Your task to perform on an android device: Go to Reddit.com Image 0: 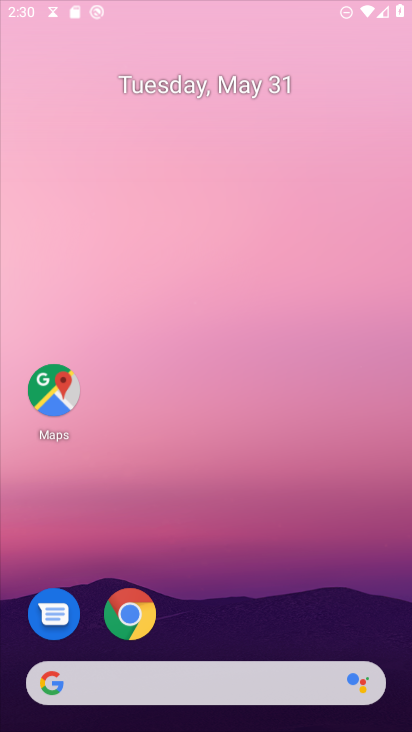
Step 0: press home button
Your task to perform on an android device: Go to Reddit.com Image 1: 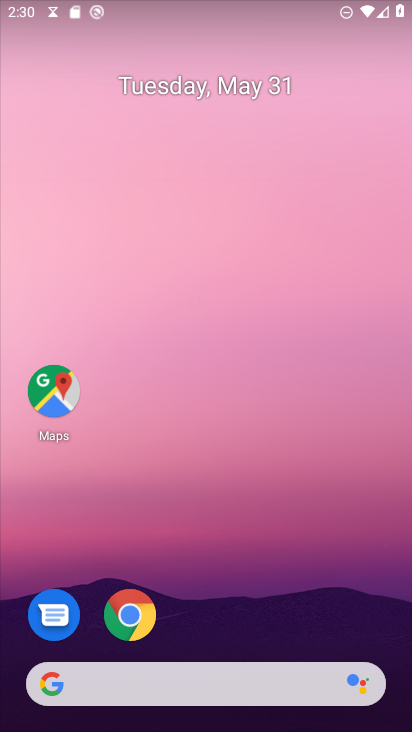
Step 1: drag from (242, 710) to (190, 110)
Your task to perform on an android device: Go to Reddit.com Image 2: 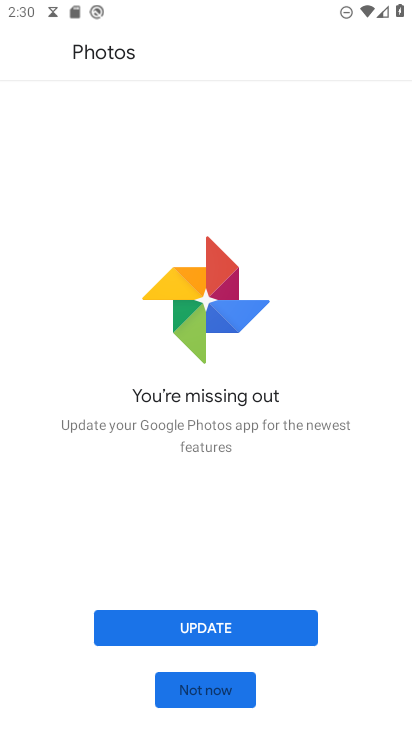
Step 2: click (207, 686)
Your task to perform on an android device: Go to Reddit.com Image 3: 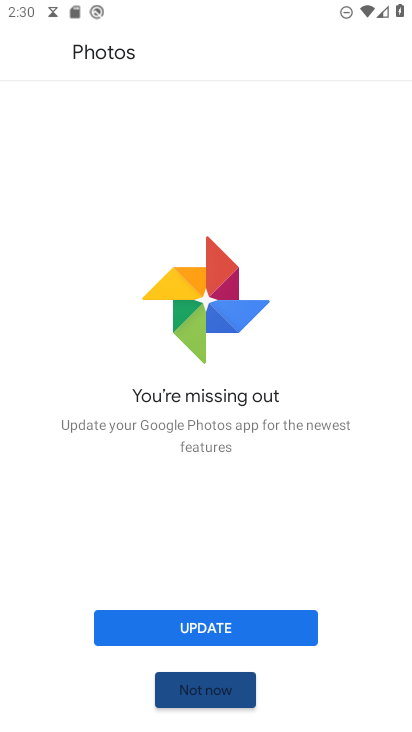
Step 3: click (207, 686)
Your task to perform on an android device: Go to Reddit.com Image 4: 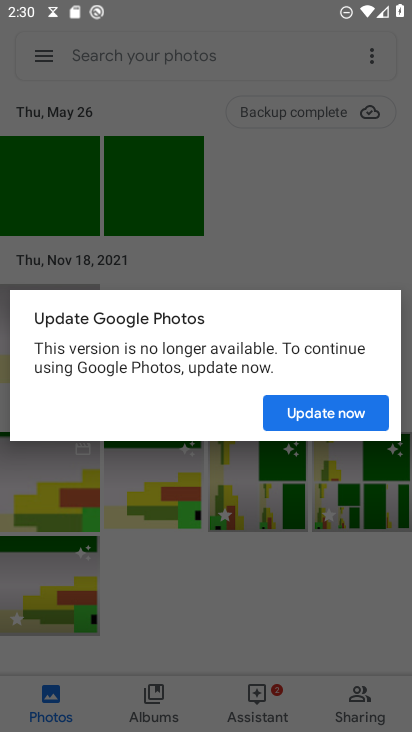
Step 4: click (323, 406)
Your task to perform on an android device: Go to Reddit.com Image 5: 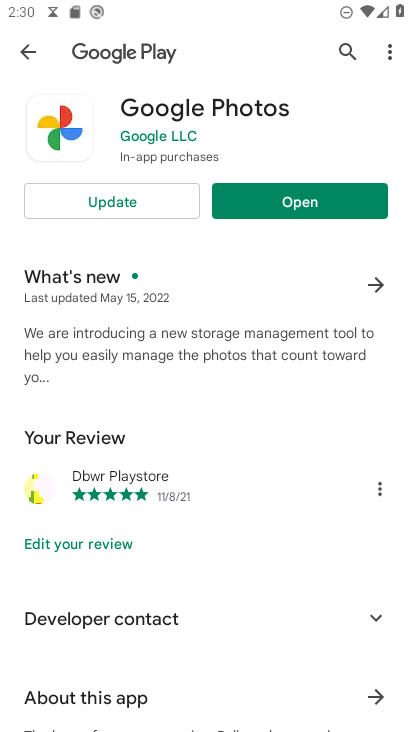
Step 5: press back button
Your task to perform on an android device: Go to Reddit.com Image 6: 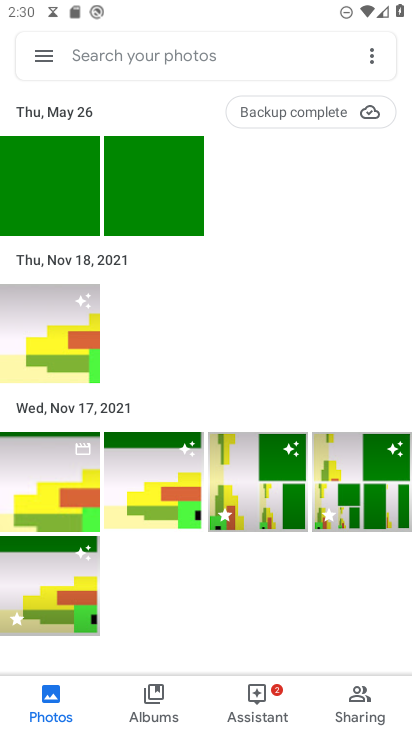
Step 6: press home button
Your task to perform on an android device: Go to Reddit.com Image 7: 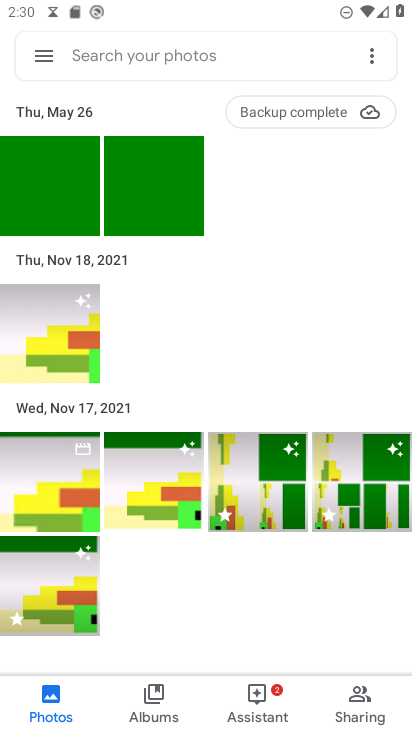
Step 7: press home button
Your task to perform on an android device: Go to Reddit.com Image 8: 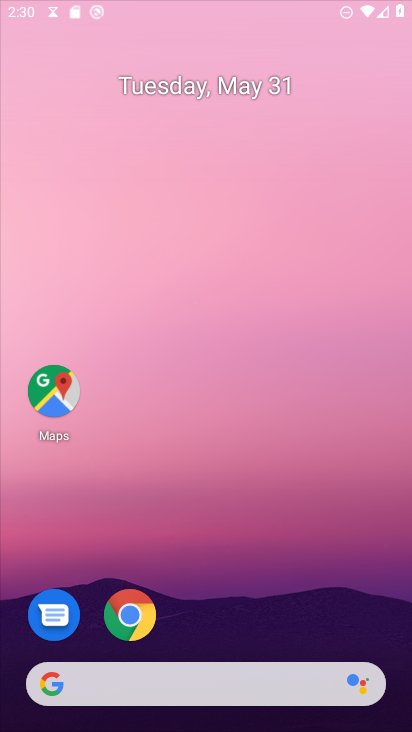
Step 8: press home button
Your task to perform on an android device: Go to Reddit.com Image 9: 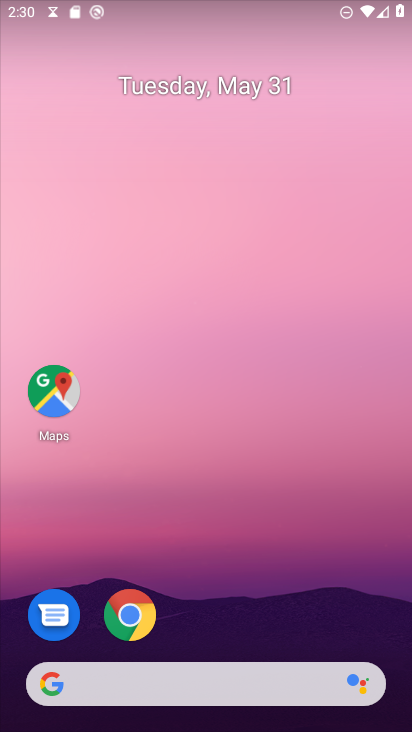
Step 9: drag from (246, 685) to (217, 125)
Your task to perform on an android device: Go to Reddit.com Image 10: 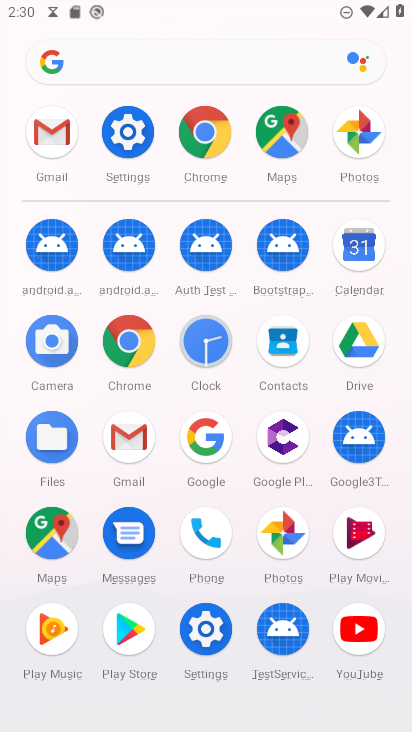
Step 10: click (200, 124)
Your task to perform on an android device: Go to Reddit.com Image 11: 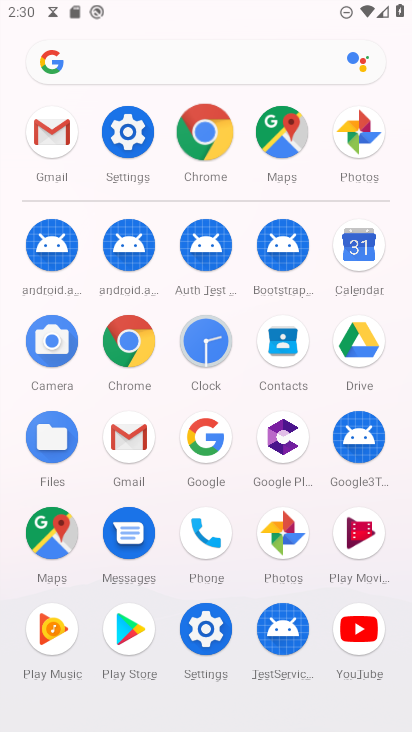
Step 11: click (202, 127)
Your task to perform on an android device: Go to Reddit.com Image 12: 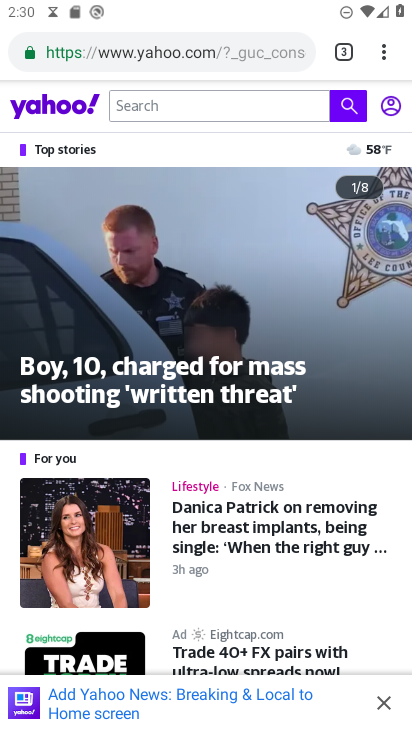
Step 12: press back button
Your task to perform on an android device: Go to Reddit.com Image 13: 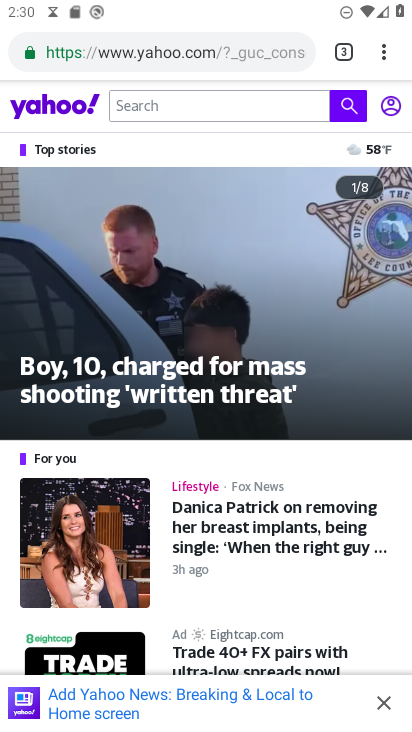
Step 13: press back button
Your task to perform on an android device: Go to Reddit.com Image 14: 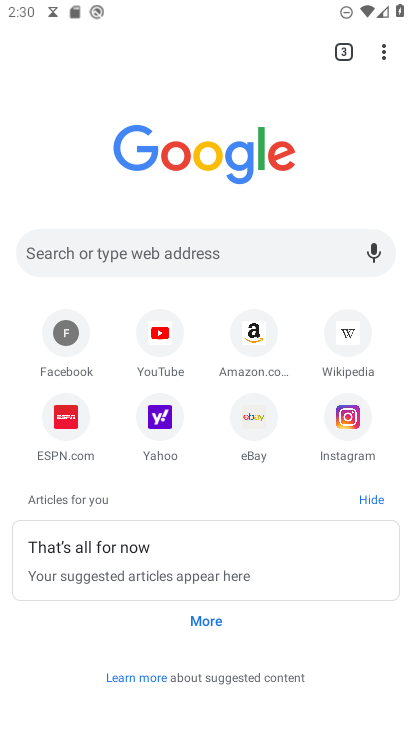
Step 14: press back button
Your task to perform on an android device: Go to Reddit.com Image 15: 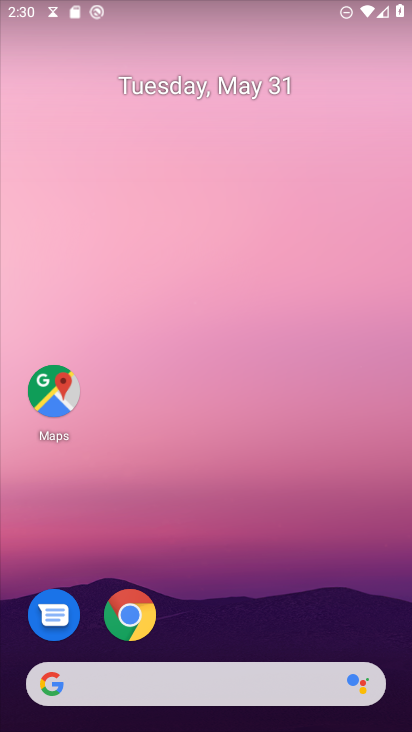
Step 15: drag from (382, 55) to (371, 154)
Your task to perform on an android device: Go to Reddit.com Image 16: 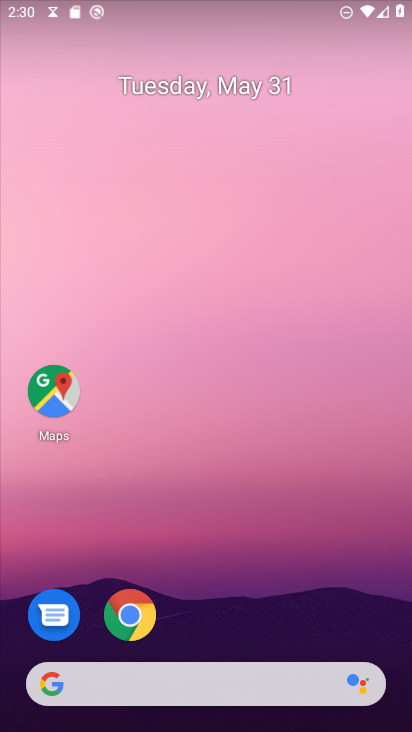
Step 16: drag from (212, 616) to (203, 44)
Your task to perform on an android device: Go to Reddit.com Image 17: 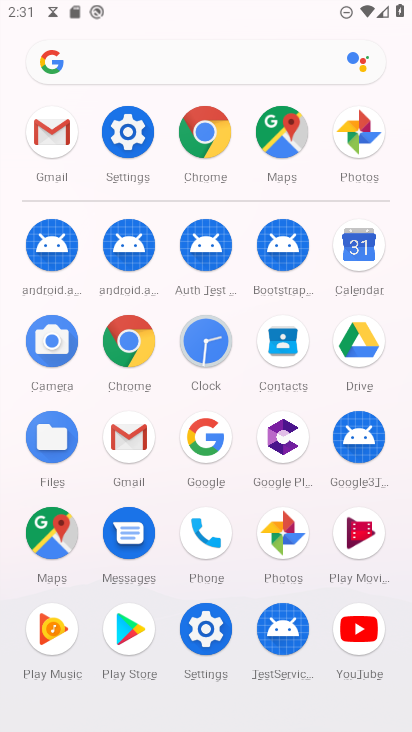
Step 17: click (204, 130)
Your task to perform on an android device: Go to Reddit.com Image 18: 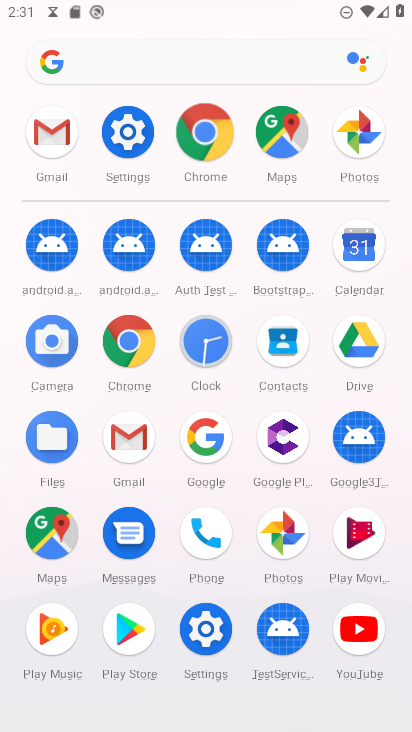
Step 18: click (204, 130)
Your task to perform on an android device: Go to Reddit.com Image 19: 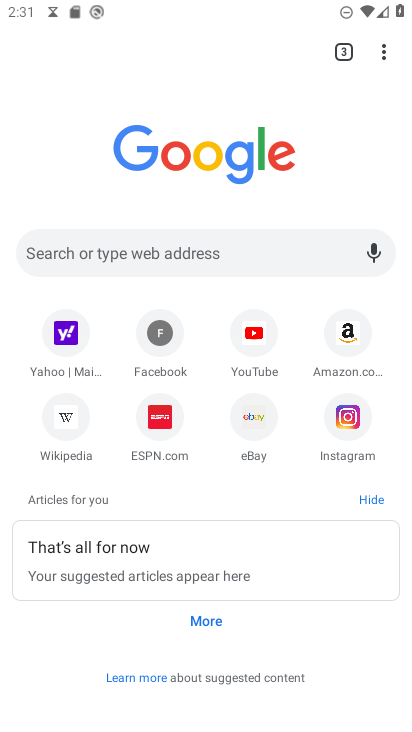
Step 19: drag from (382, 58) to (192, 174)
Your task to perform on an android device: Go to Reddit.com Image 20: 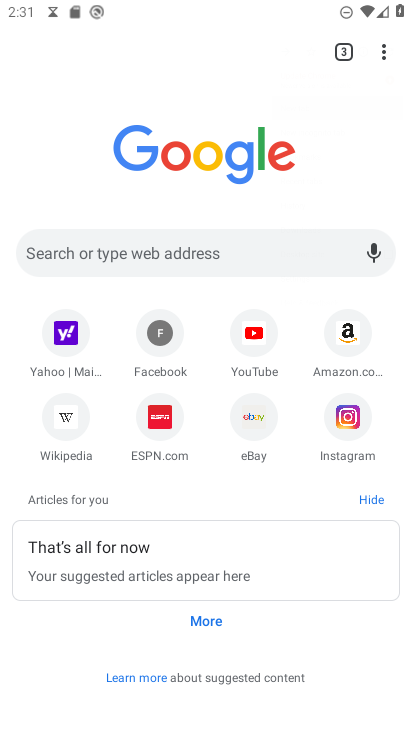
Step 20: click (192, 174)
Your task to perform on an android device: Go to Reddit.com Image 21: 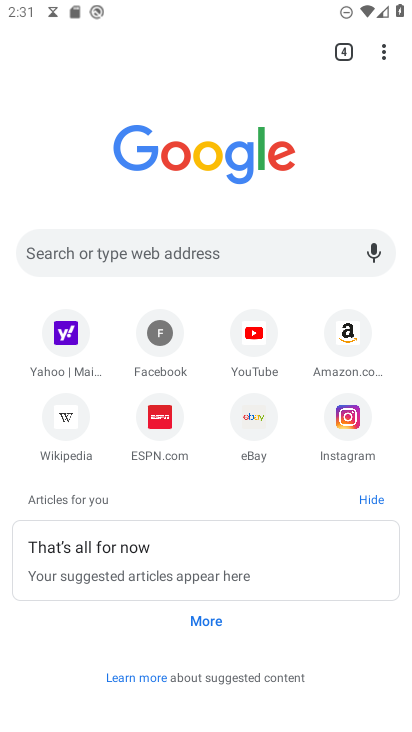
Step 21: click (192, 174)
Your task to perform on an android device: Go to Reddit.com Image 22: 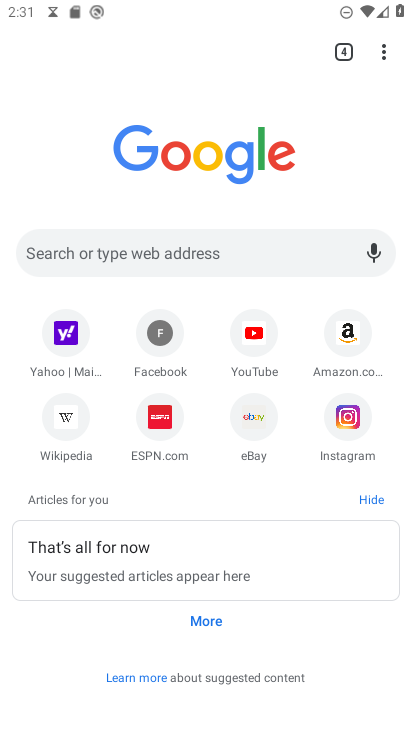
Step 22: click (53, 252)
Your task to perform on an android device: Go to Reddit.com Image 23: 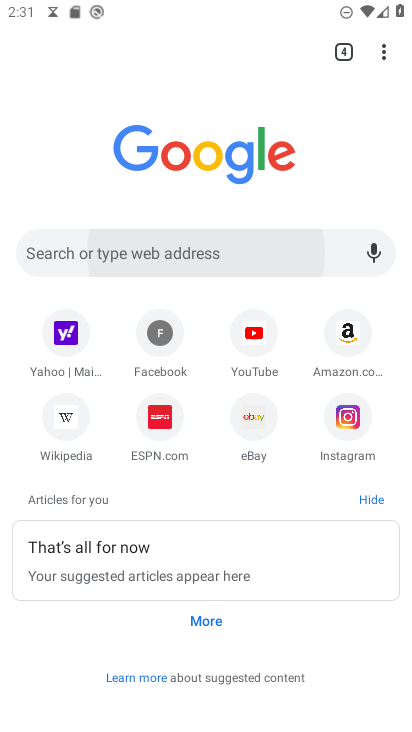
Step 23: click (52, 251)
Your task to perform on an android device: Go to Reddit.com Image 24: 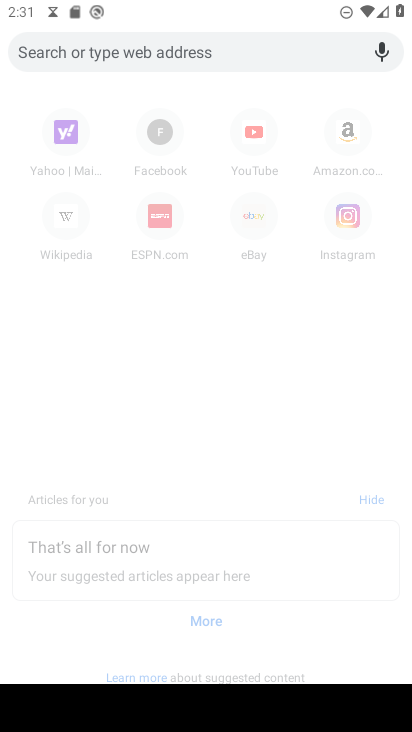
Step 24: type "reddit.com"
Your task to perform on an android device: Go to Reddit.com Image 25: 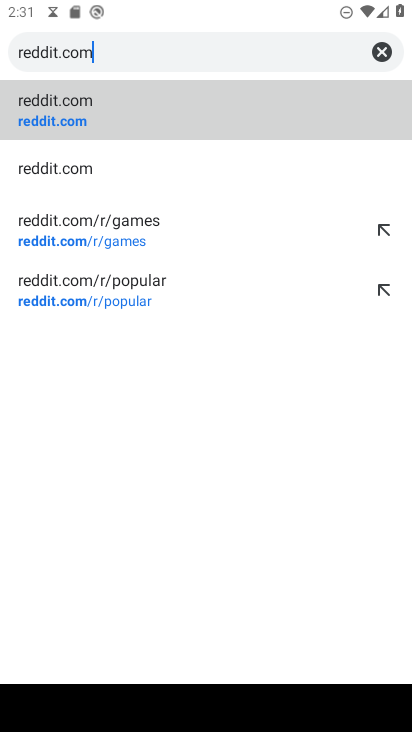
Step 25: click (60, 110)
Your task to perform on an android device: Go to Reddit.com Image 26: 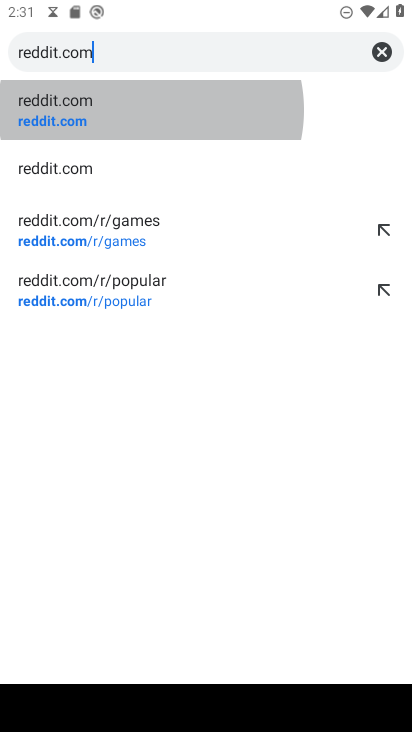
Step 26: click (59, 107)
Your task to perform on an android device: Go to Reddit.com Image 27: 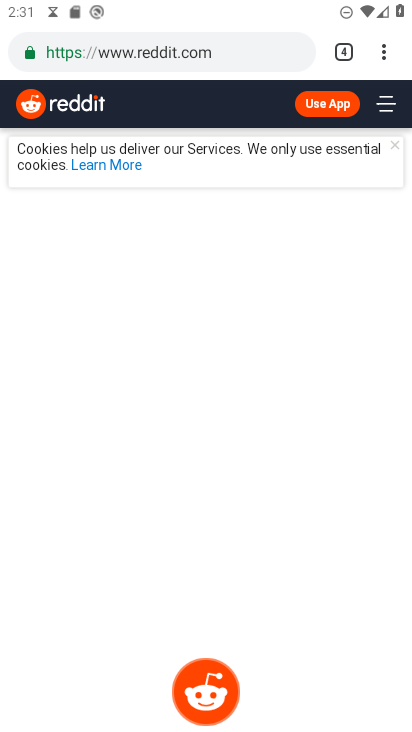
Step 27: task complete